Your task to perform on an android device: Open location settings Image 0: 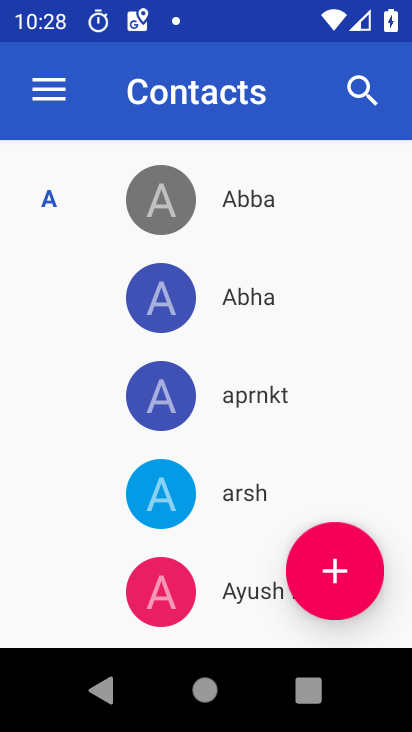
Step 0: press back button
Your task to perform on an android device: Open location settings Image 1: 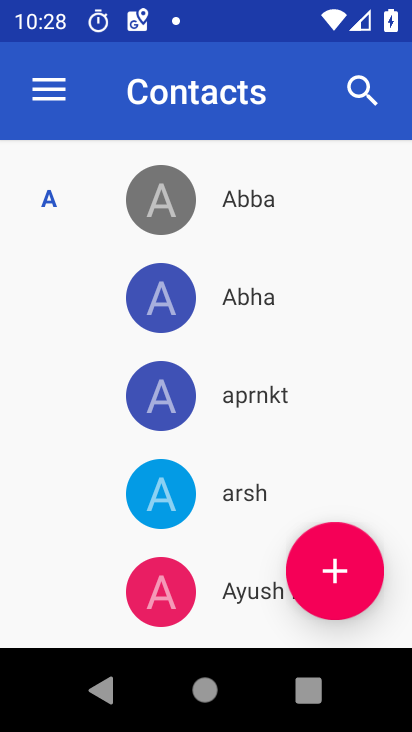
Step 1: press back button
Your task to perform on an android device: Open location settings Image 2: 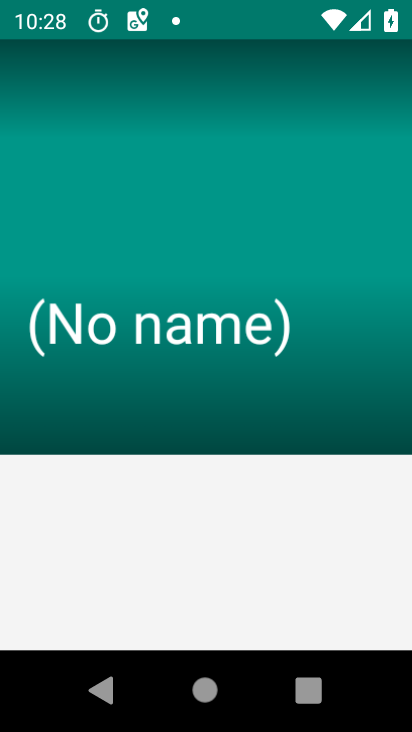
Step 2: press back button
Your task to perform on an android device: Open location settings Image 3: 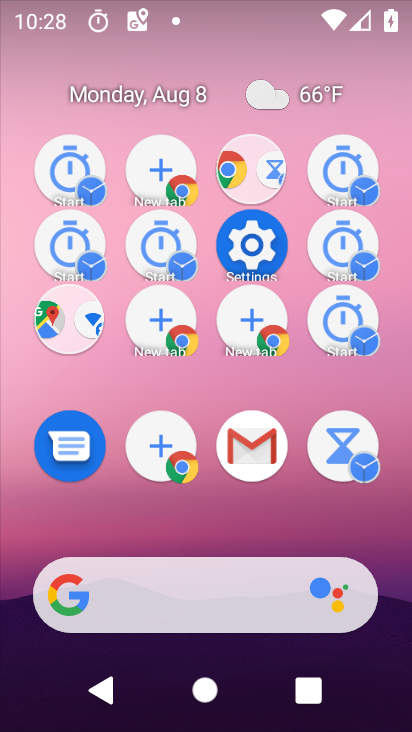
Step 3: drag from (253, 569) to (236, 275)
Your task to perform on an android device: Open location settings Image 4: 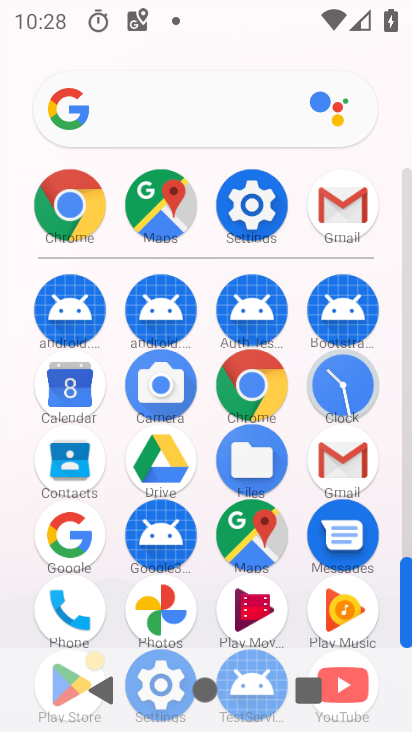
Step 4: click (253, 219)
Your task to perform on an android device: Open location settings Image 5: 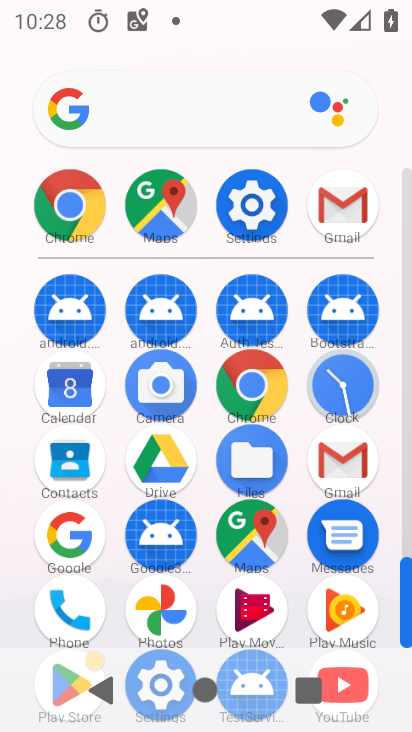
Step 5: click (248, 206)
Your task to perform on an android device: Open location settings Image 6: 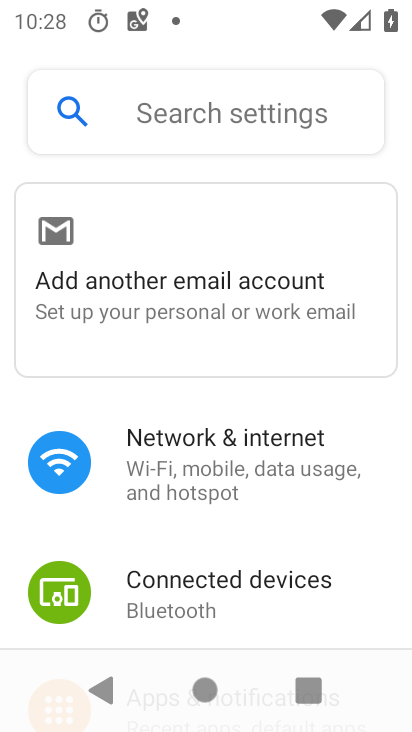
Step 6: click (219, 332)
Your task to perform on an android device: Open location settings Image 7: 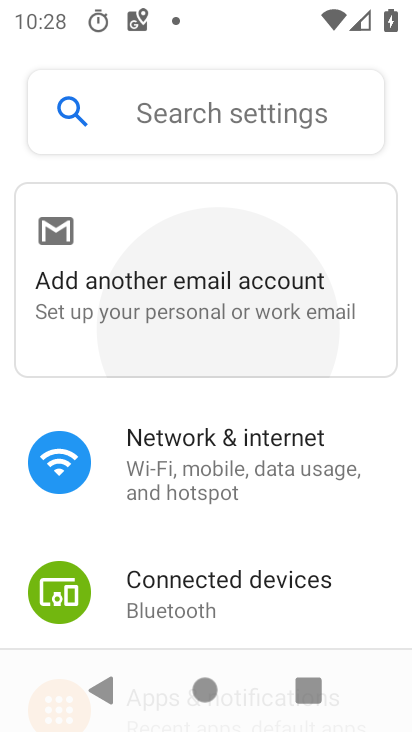
Step 7: drag from (241, 431) to (222, 271)
Your task to perform on an android device: Open location settings Image 8: 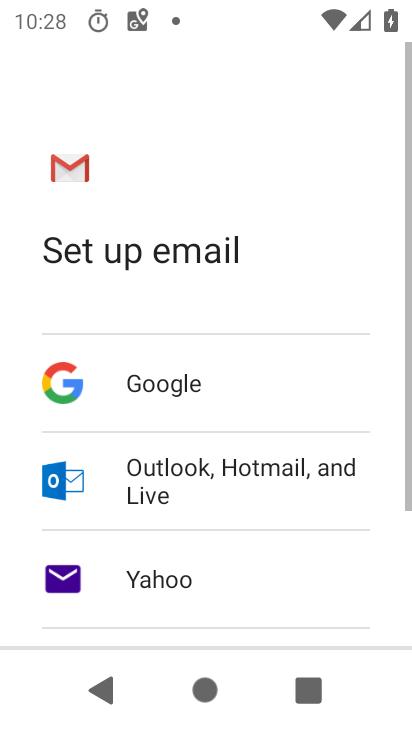
Step 8: drag from (249, 489) to (277, 182)
Your task to perform on an android device: Open location settings Image 9: 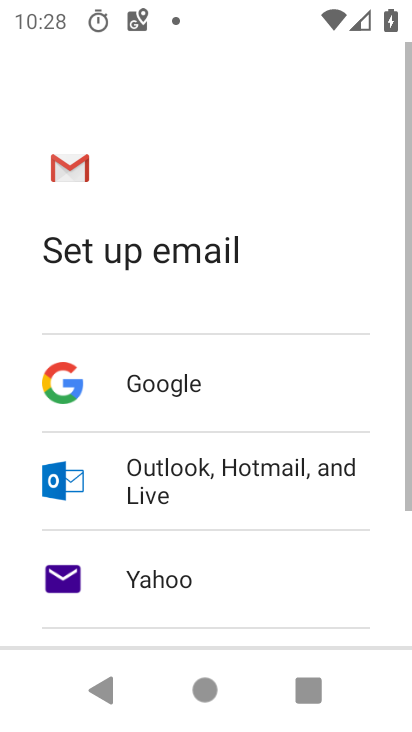
Step 9: press back button
Your task to perform on an android device: Open location settings Image 10: 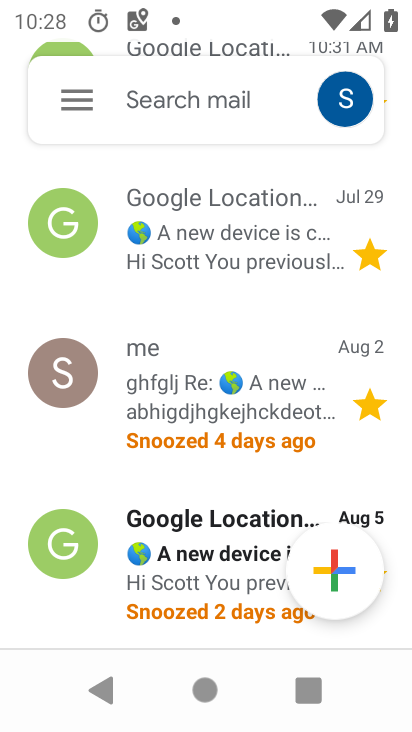
Step 10: press home button
Your task to perform on an android device: Open location settings Image 11: 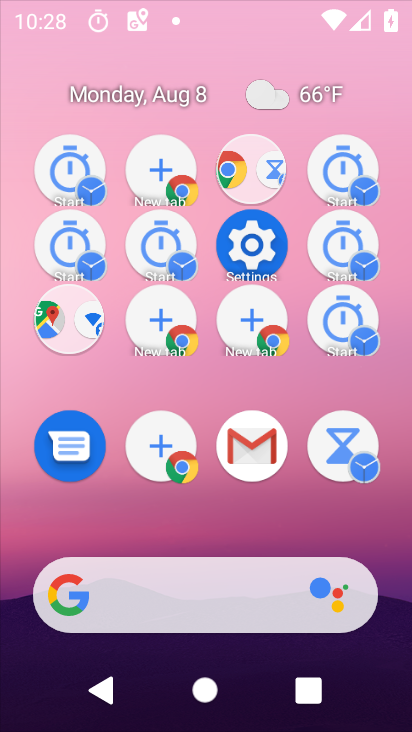
Step 11: drag from (199, 425) to (215, 223)
Your task to perform on an android device: Open location settings Image 12: 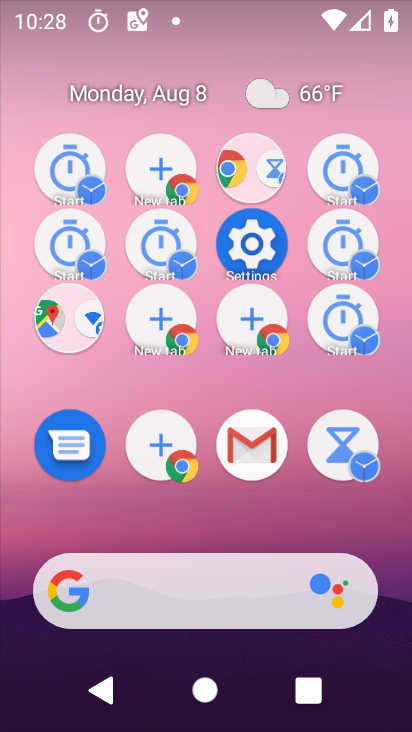
Step 12: drag from (226, 385) to (216, 159)
Your task to perform on an android device: Open location settings Image 13: 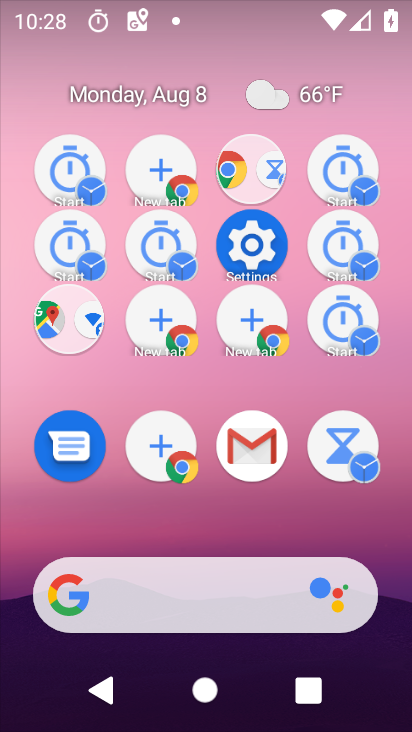
Step 13: click (246, 245)
Your task to perform on an android device: Open location settings Image 14: 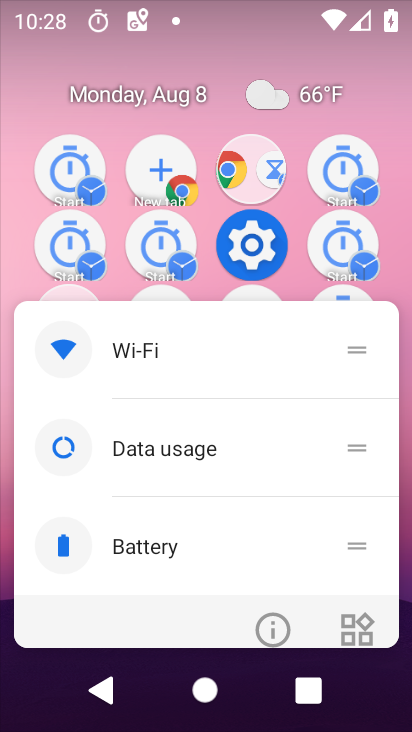
Step 14: click (249, 245)
Your task to perform on an android device: Open location settings Image 15: 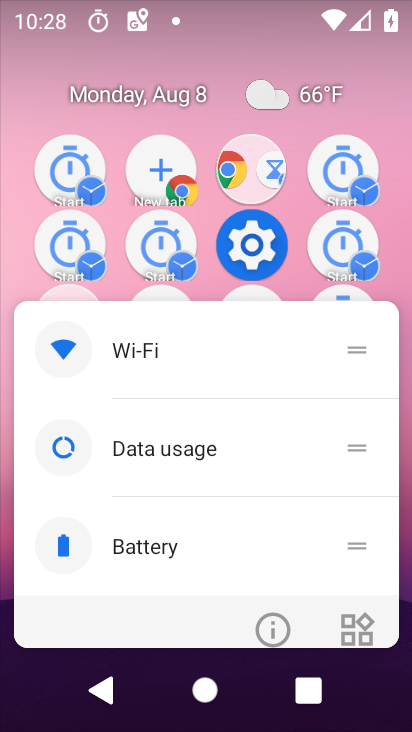
Step 15: click (235, 256)
Your task to perform on an android device: Open location settings Image 16: 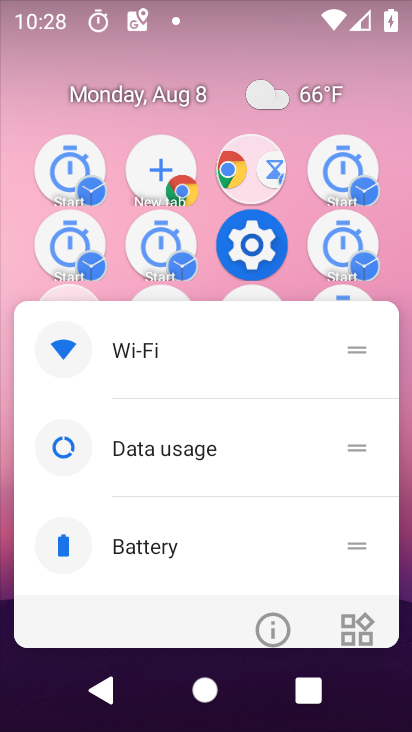
Step 16: click (242, 258)
Your task to perform on an android device: Open location settings Image 17: 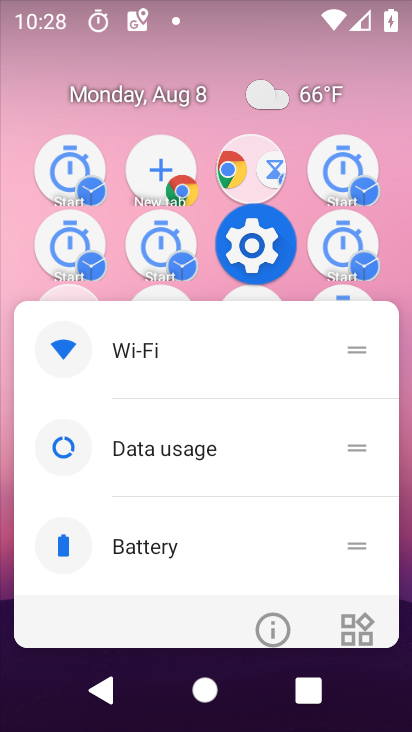
Step 17: click (247, 258)
Your task to perform on an android device: Open location settings Image 18: 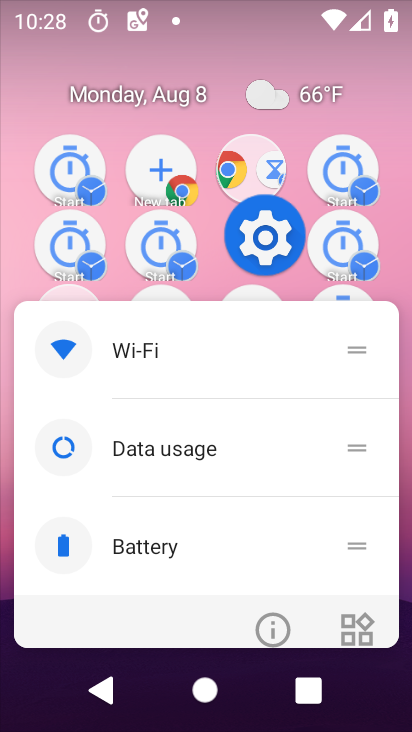
Step 18: click (262, 250)
Your task to perform on an android device: Open location settings Image 19: 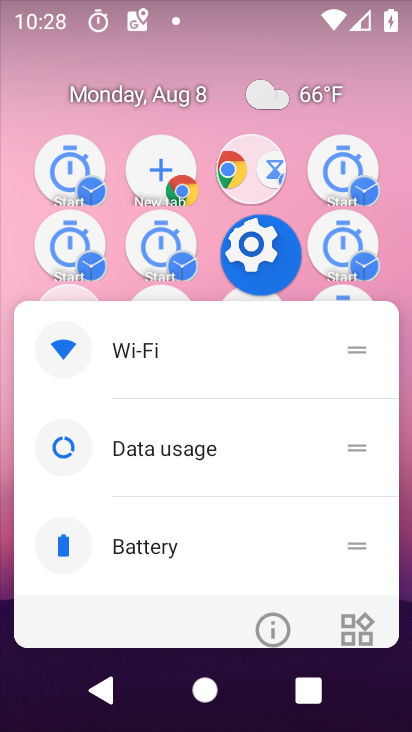
Step 19: click (255, 235)
Your task to perform on an android device: Open location settings Image 20: 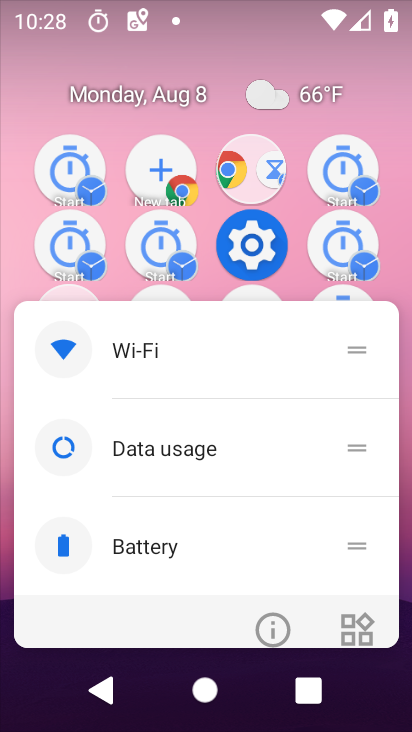
Step 20: click (255, 253)
Your task to perform on an android device: Open location settings Image 21: 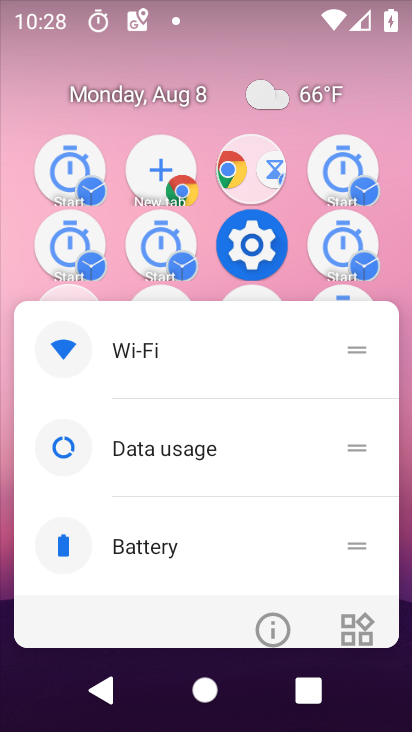
Step 21: press back button
Your task to perform on an android device: Open location settings Image 22: 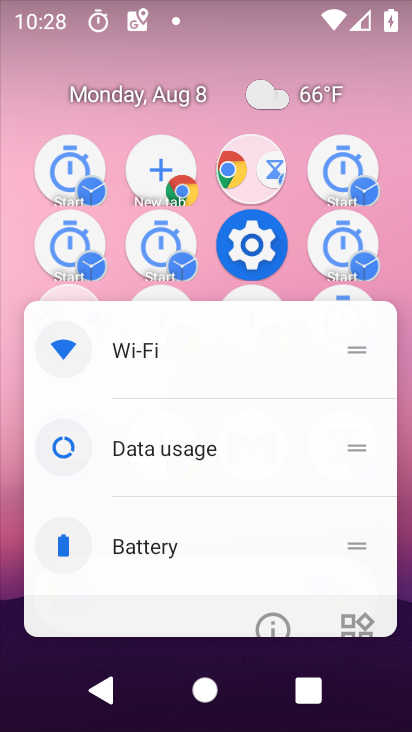
Step 22: press back button
Your task to perform on an android device: Open location settings Image 23: 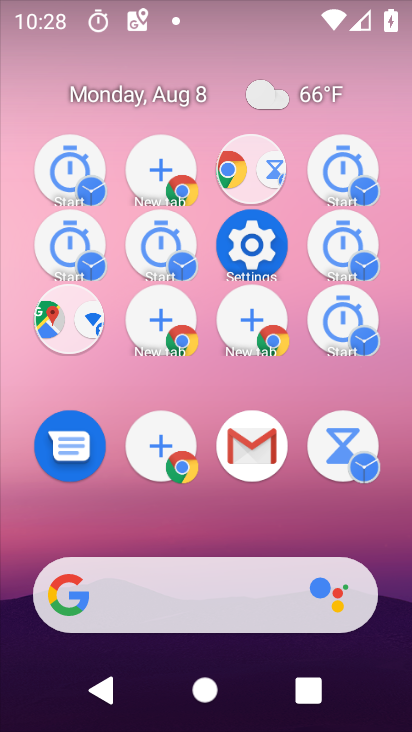
Step 23: drag from (183, 139) to (260, 28)
Your task to perform on an android device: Open location settings Image 24: 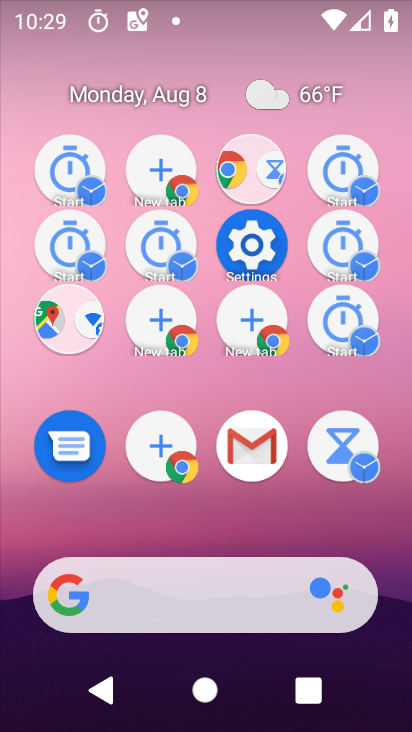
Step 24: drag from (288, 426) to (249, 154)
Your task to perform on an android device: Open location settings Image 25: 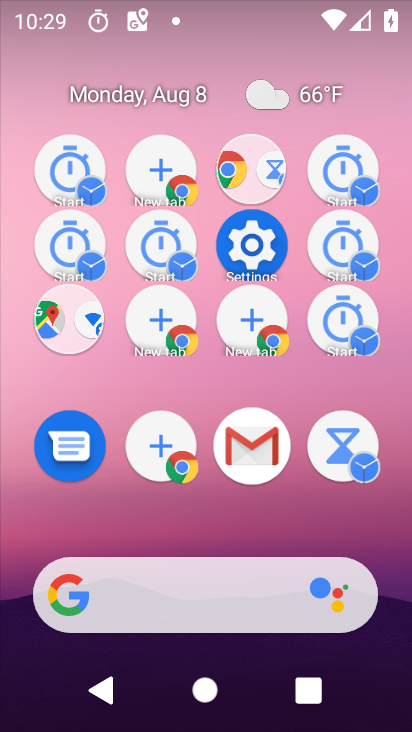
Step 25: drag from (251, 381) to (251, 234)
Your task to perform on an android device: Open location settings Image 26: 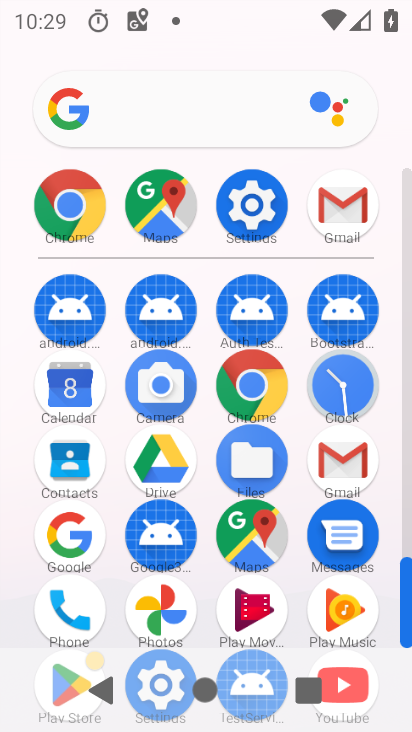
Step 26: click (244, 203)
Your task to perform on an android device: Open location settings Image 27: 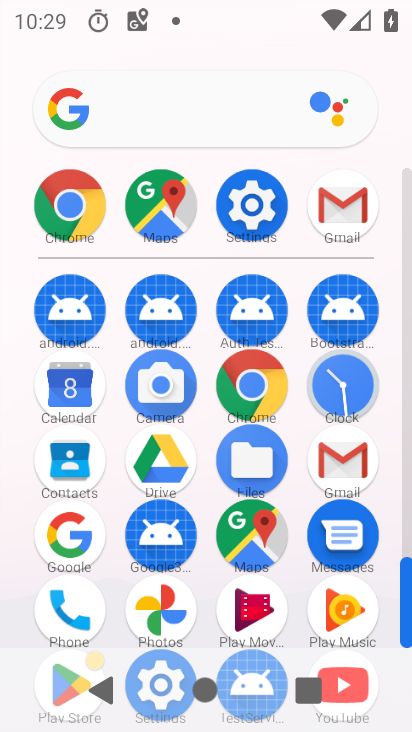
Step 27: click (244, 203)
Your task to perform on an android device: Open location settings Image 28: 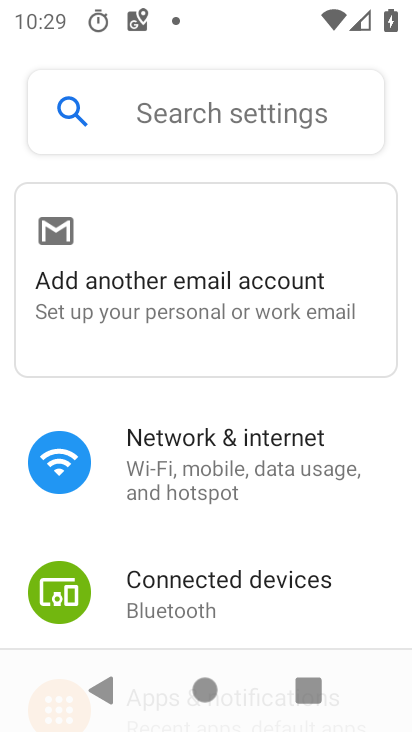
Step 28: drag from (195, 526) to (170, 286)
Your task to perform on an android device: Open location settings Image 29: 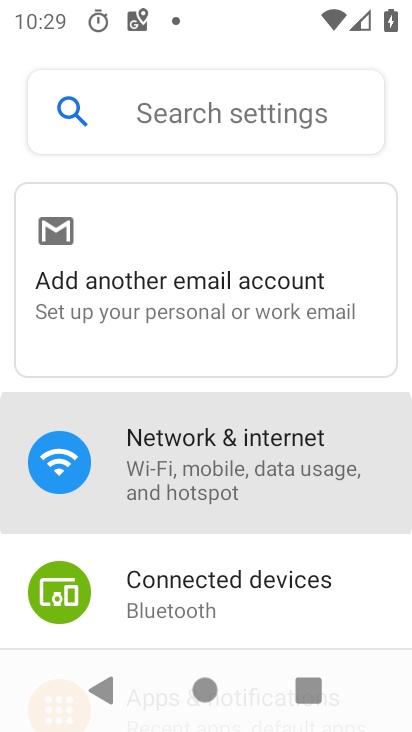
Step 29: drag from (201, 483) to (189, 292)
Your task to perform on an android device: Open location settings Image 30: 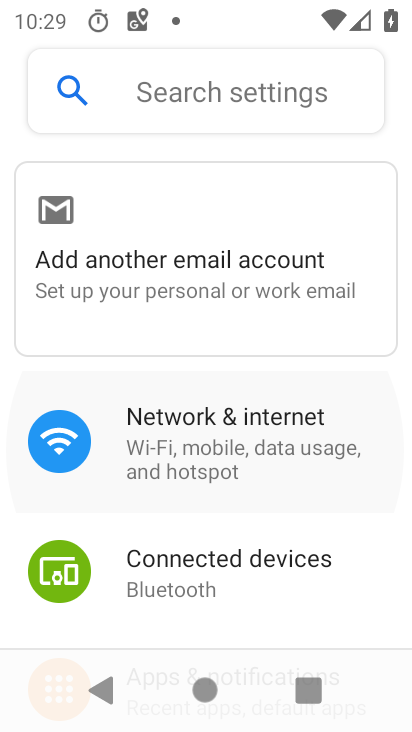
Step 30: drag from (174, 515) to (170, 295)
Your task to perform on an android device: Open location settings Image 31: 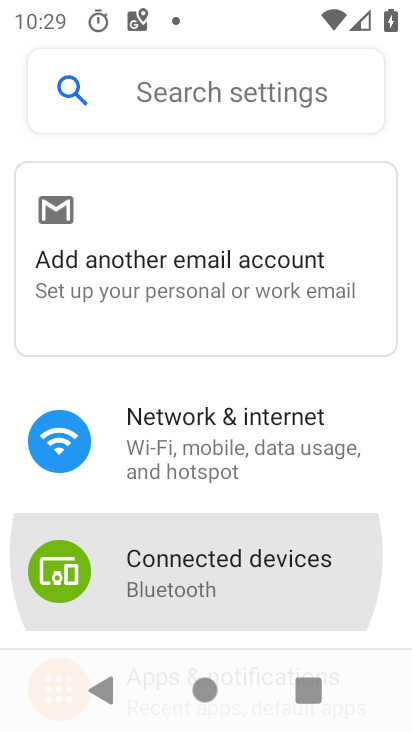
Step 31: drag from (196, 506) to (174, 185)
Your task to perform on an android device: Open location settings Image 32: 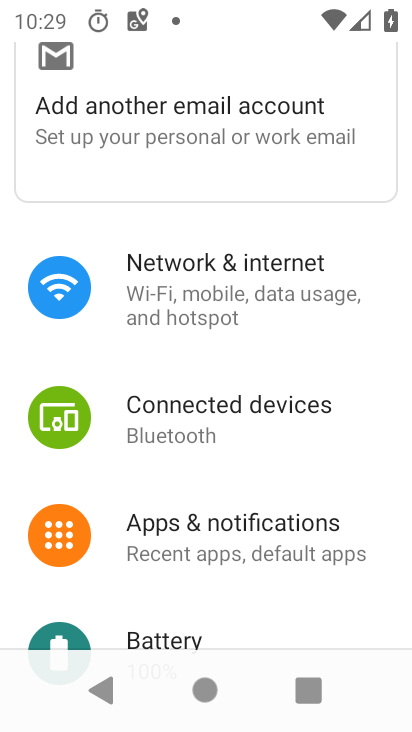
Step 32: drag from (247, 554) to (230, 276)
Your task to perform on an android device: Open location settings Image 33: 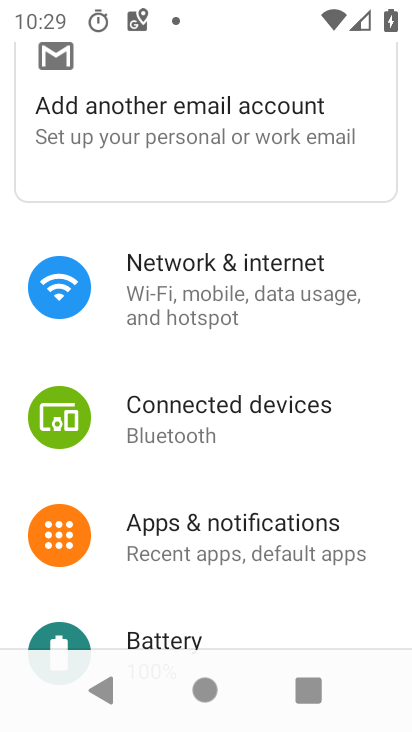
Step 33: drag from (233, 470) to (211, 304)
Your task to perform on an android device: Open location settings Image 34: 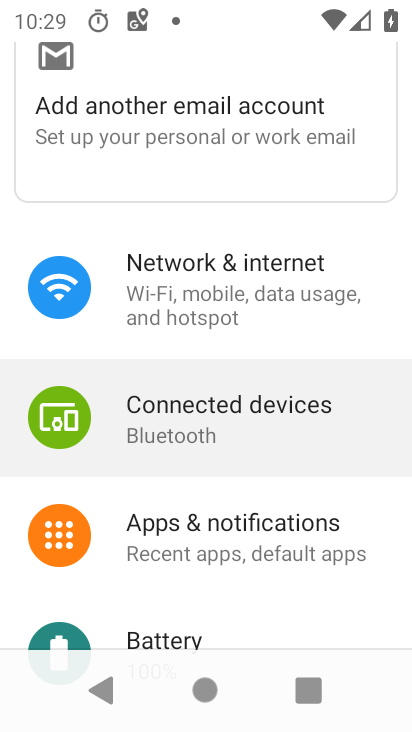
Step 34: drag from (208, 407) to (203, 203)
Your task to perform on an android device: Open location settings Image 35: 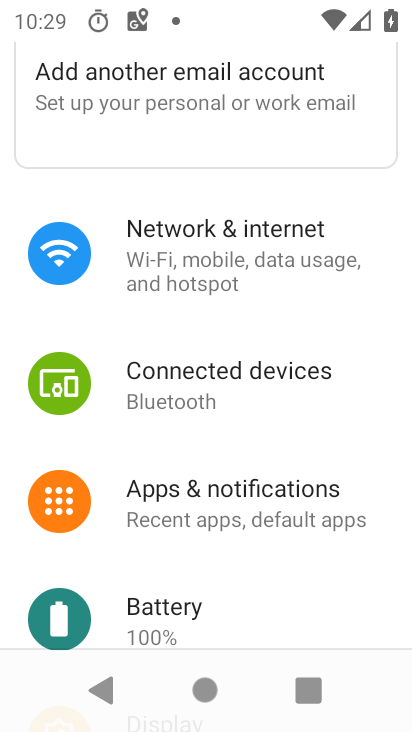
Step 35: drag from (195, 480) to (195, 186)
Your task to perform on an android device: Open location settings Image 36: 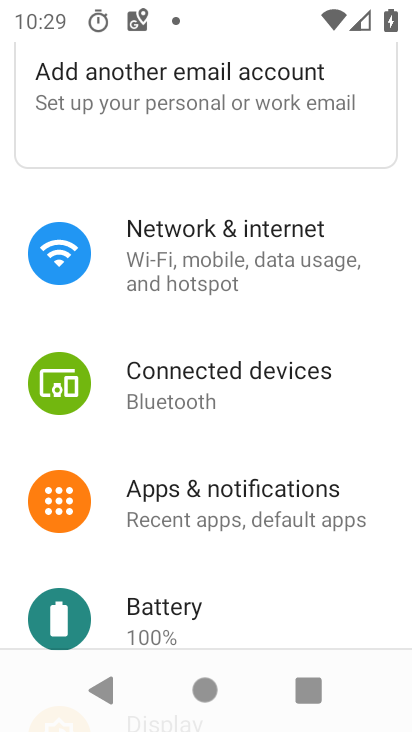
Step 36: drag from (218, 482) to (241, 253)
Your task to perform on an android device: Open location settings Image 37: 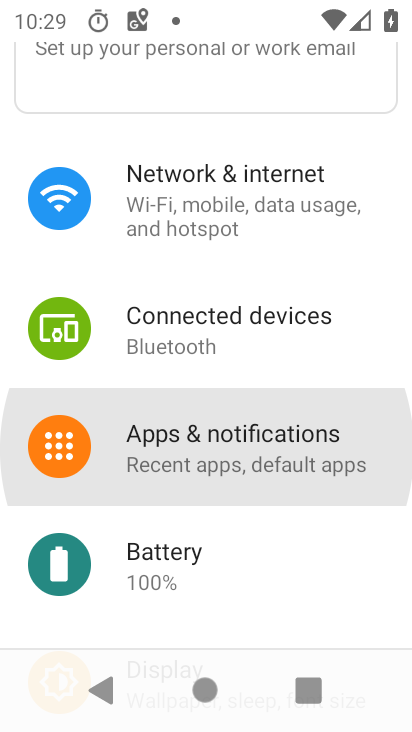
Step 37: drag from (205, 489) to (205, 249)
Your task to perform on an android device: Open location settings Image 38: 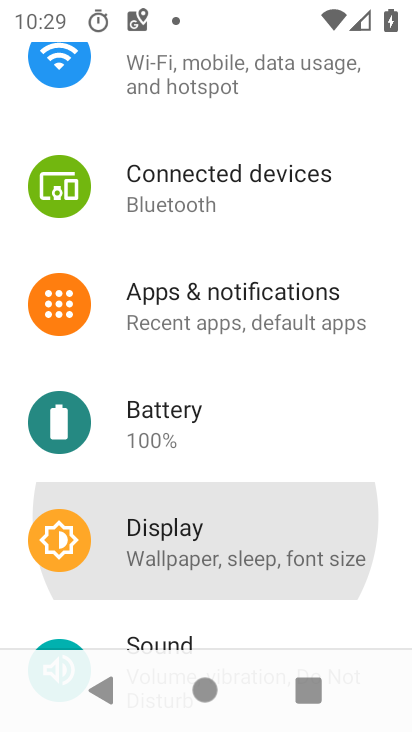
Step 38: drag from (214, 444) to (258, 128)
Your task to perform on an android device: Open location settings Image 39: 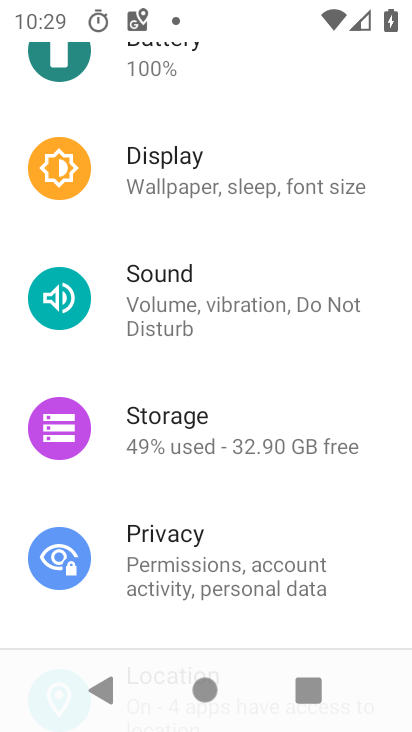
Step 39: drag from (262, 449) to (256, 251)
Your task to perform on an android device: Open location settings Image 40: 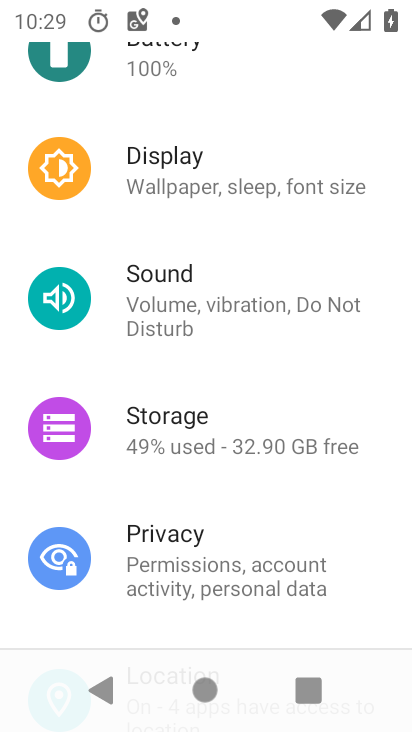
Step 40: drag from (214, 468) to (150, 226)
Your task to perform on an android device: Open location settings Image 41: 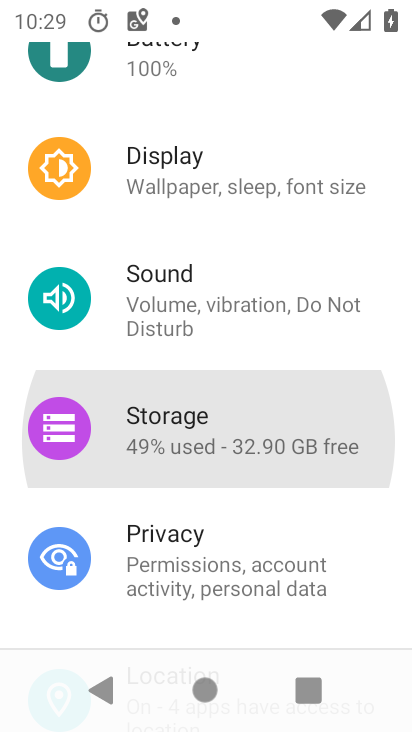
Step 41: drag from (226, 443) to (245, 159)
Your task to perform on an android device: Open location settings Image 42: 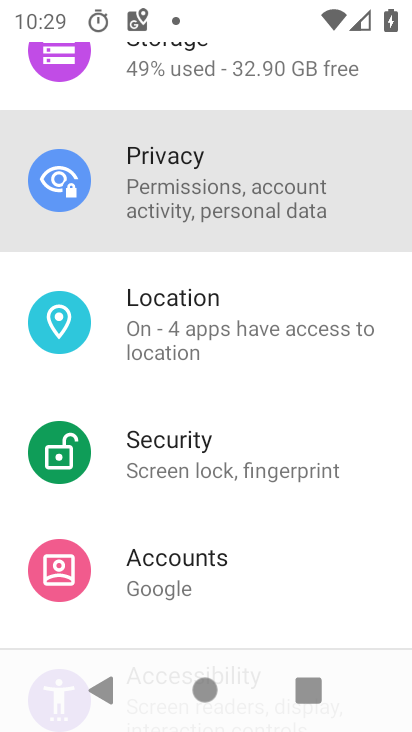
Step 42: drag from (299, 456) to (299, 200)
Your task to perform on an android device: Open location settings Image 43: 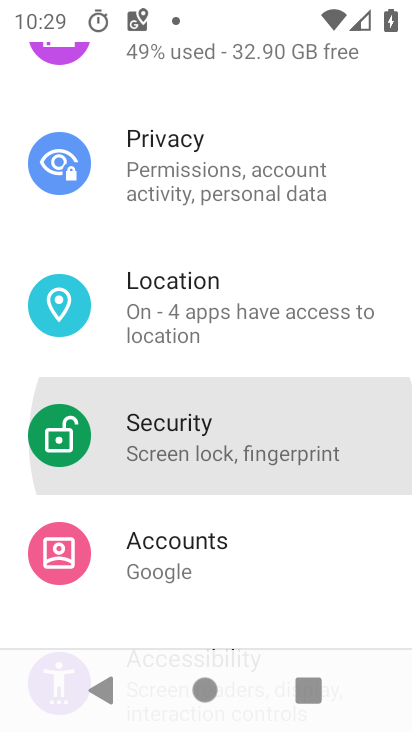
Step 43: drag from (252, 435) to (280, 225)
Your task to perform on an android device: Open location settings Image 44: 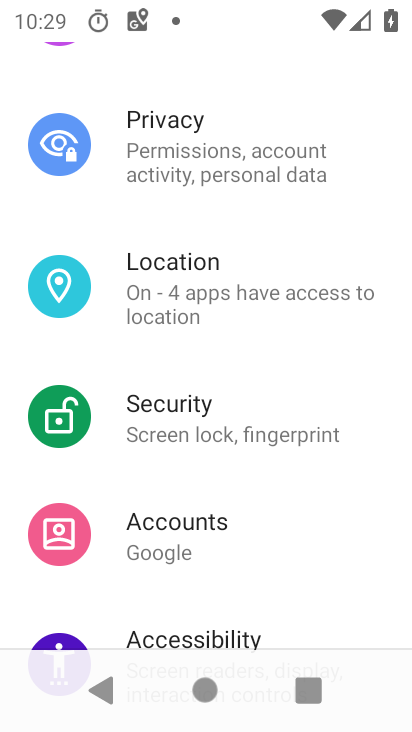
Step 44: click (175, 284)
Your task to perform on an android device: Open location settings Image 45: 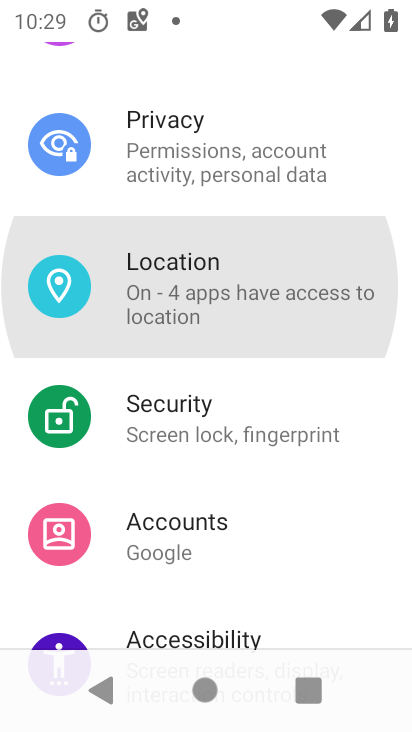
Step 45: click (172, 284)
Your task to perform on an android device: Open location settings Image 46: 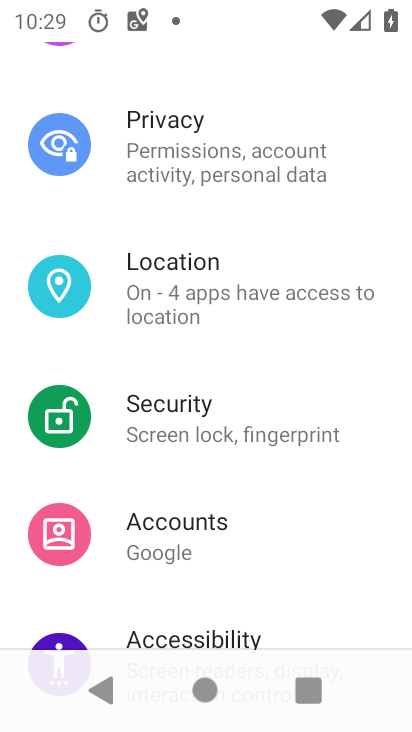
Step 46: click (172, 284)
Your task to perform on an android device: Open location settings Image 47: 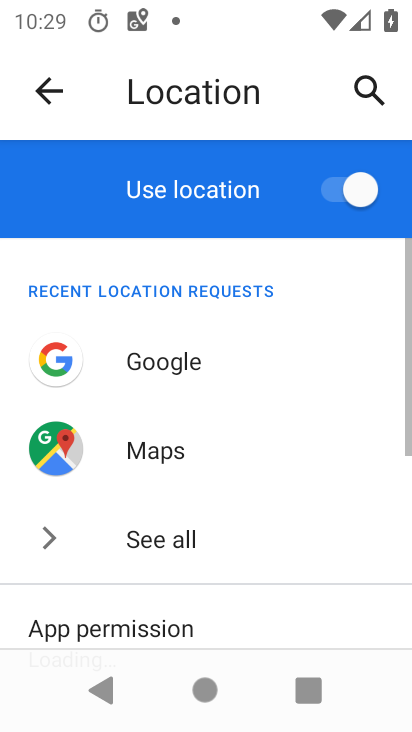
Step 47: task complete